Your task to perform on an android device: Open Youtube and go to the subscriptions tab Image 0: 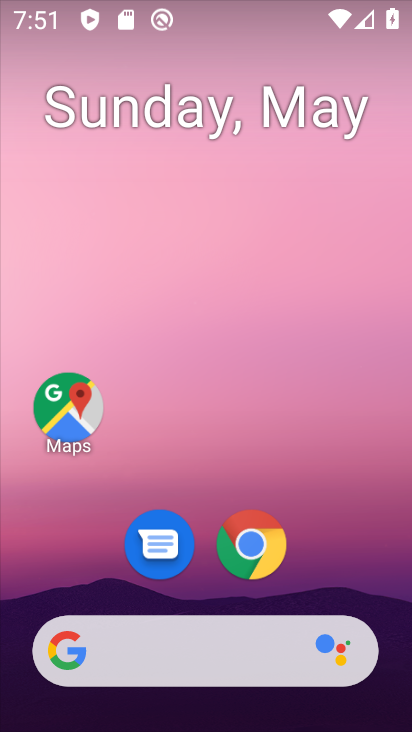
Step 0: drag from (318, 469) to (254, 23)
Your task to perform on an android device: Open Youtube and go to the subscriptions tab Image 1: 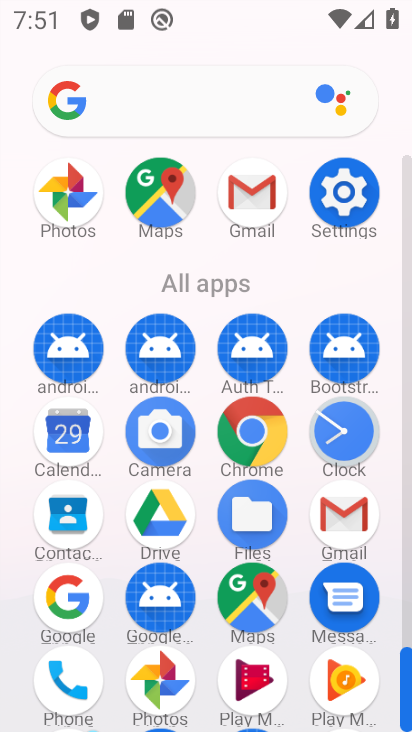
Step 1: drag from (6, 612) to (36, 282)
Your task to perform on an android device: Open Youtube and go to the subscriptions tab Image 2: 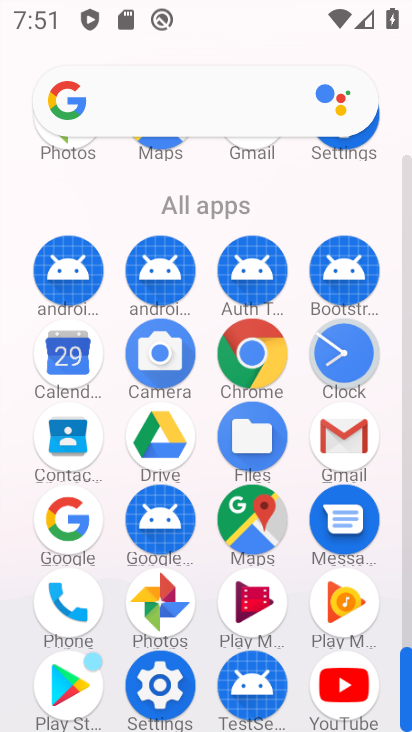
Step 2: click (343, 679)
Your task to perform on an android device: Open Youtube and go to the subscriptions tab Image 3: 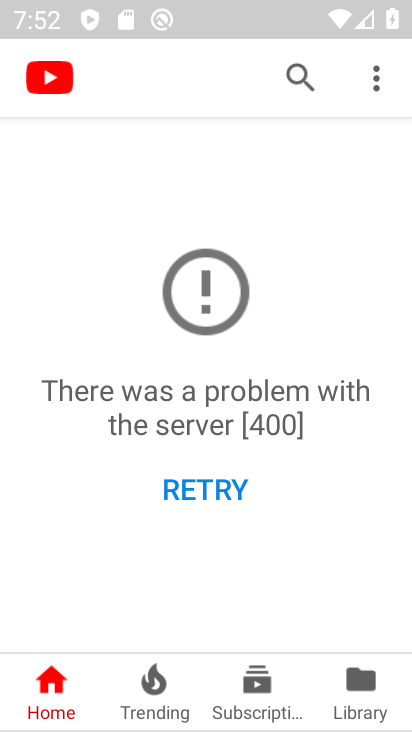
Step 3: click (260, 696)
Your task to perform on an android device: Open Youtube and go to the subscriptions tab Image 4: 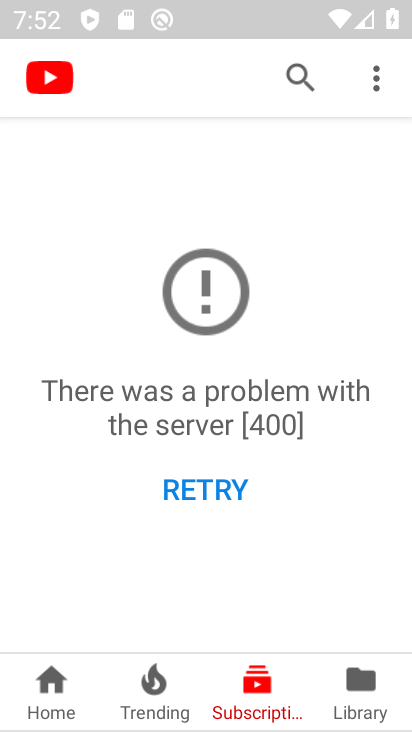
Step 4: task complete